Your task to perform on an android device: turn smart compose on in the gmail app Image 0: 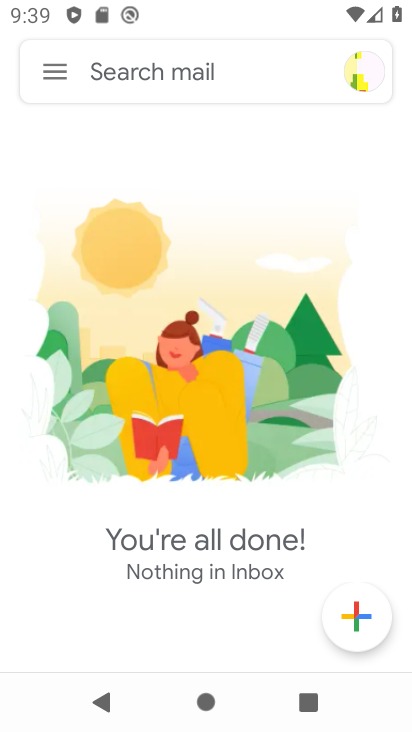
Step 0: press home button
Your task to perform on an android device: turn smart compose on in the gmail app Image 1: 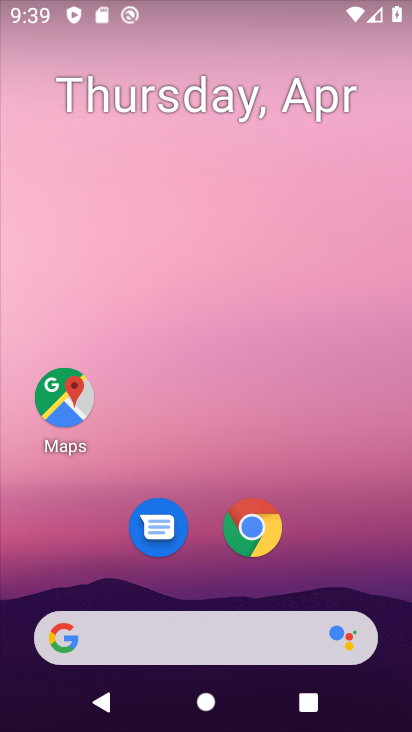
Step 1: drag from (173, 638) to (250, 257)
Your task to perform on an android device: turn smart compose on in the gmail app Image 2: 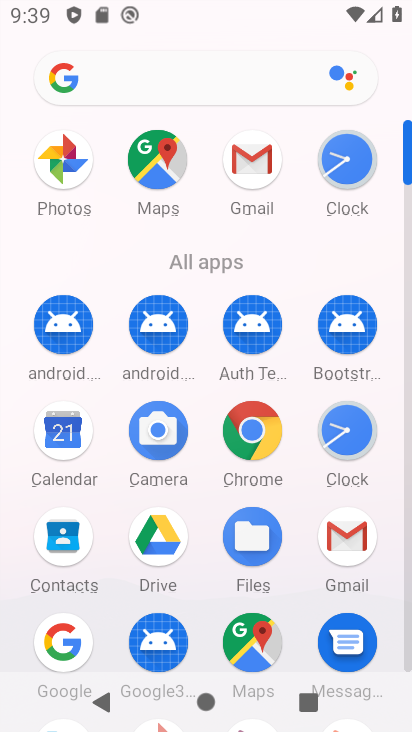
Step 2: click (259, 173)
Your task to perform on an android device: turn smart compose on in the gmail app Image 3: 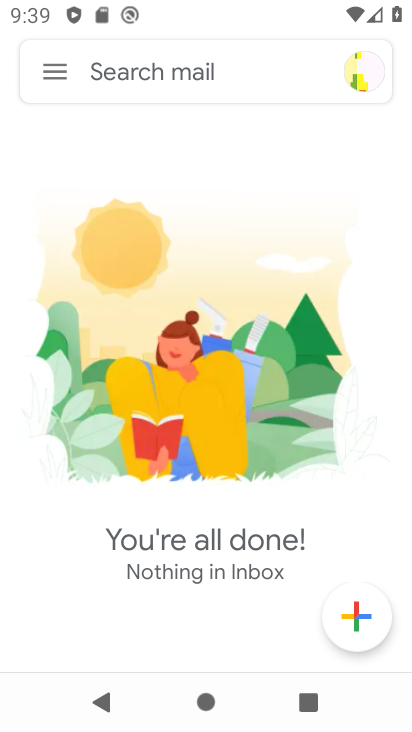
Step 3: click (43, 64)
Your task to perform on an android device: turn smart compose on in the gmail app Image 4: 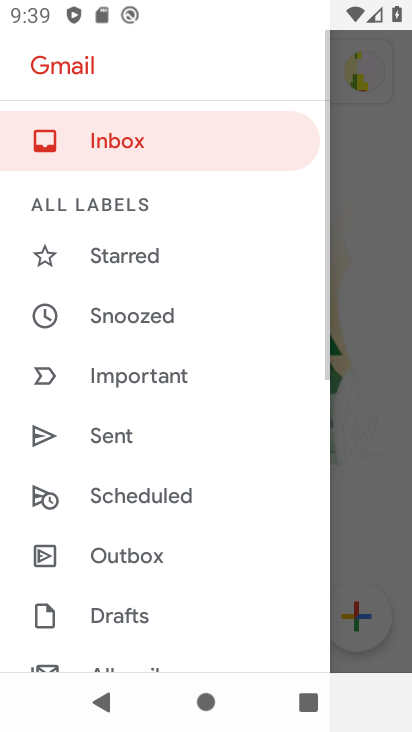
Step 4: drag from (156, 541) to (268, 49)
Your task to perform on an android device: turn smart compose on in the gmail app Image 5: 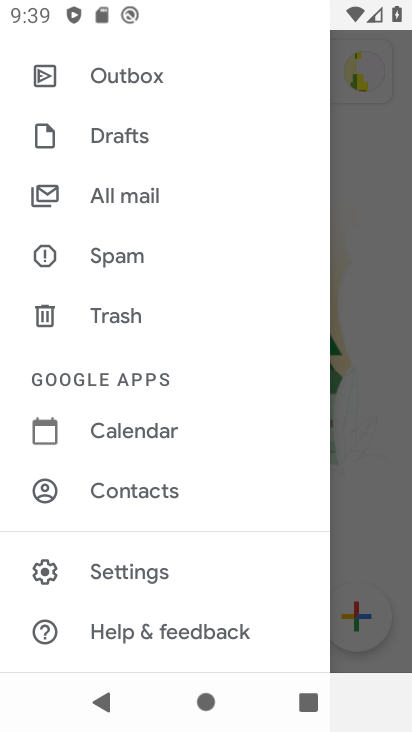
Step 5: click (140, 576)
Your task to perform on an android device: turn smart compose on in the gmail app Image 6: 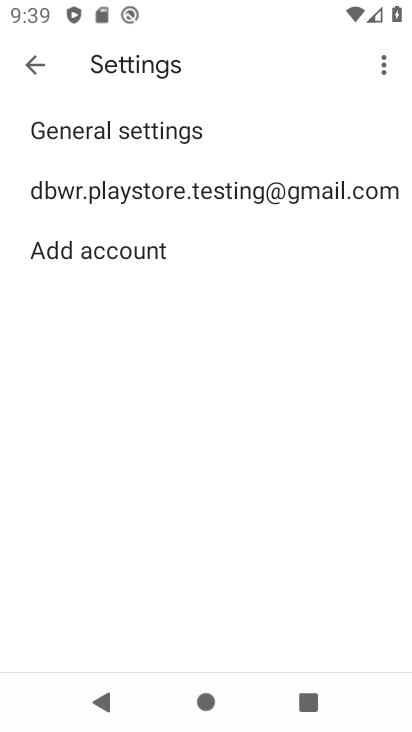
Step 6: click (240, 186)
Your task to perform on an android device: turn smart compose on in the gmail app Image 7: 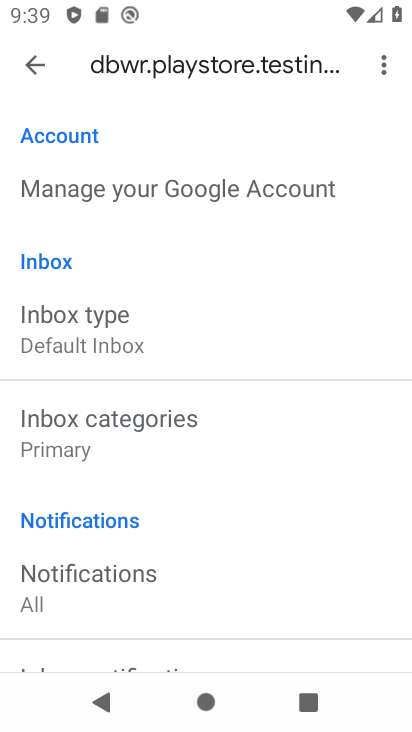
Step 7: task complete